Your task to perform on an android device: open app "eBay: The shopping marketplace" (install if not already installed) Image 0: 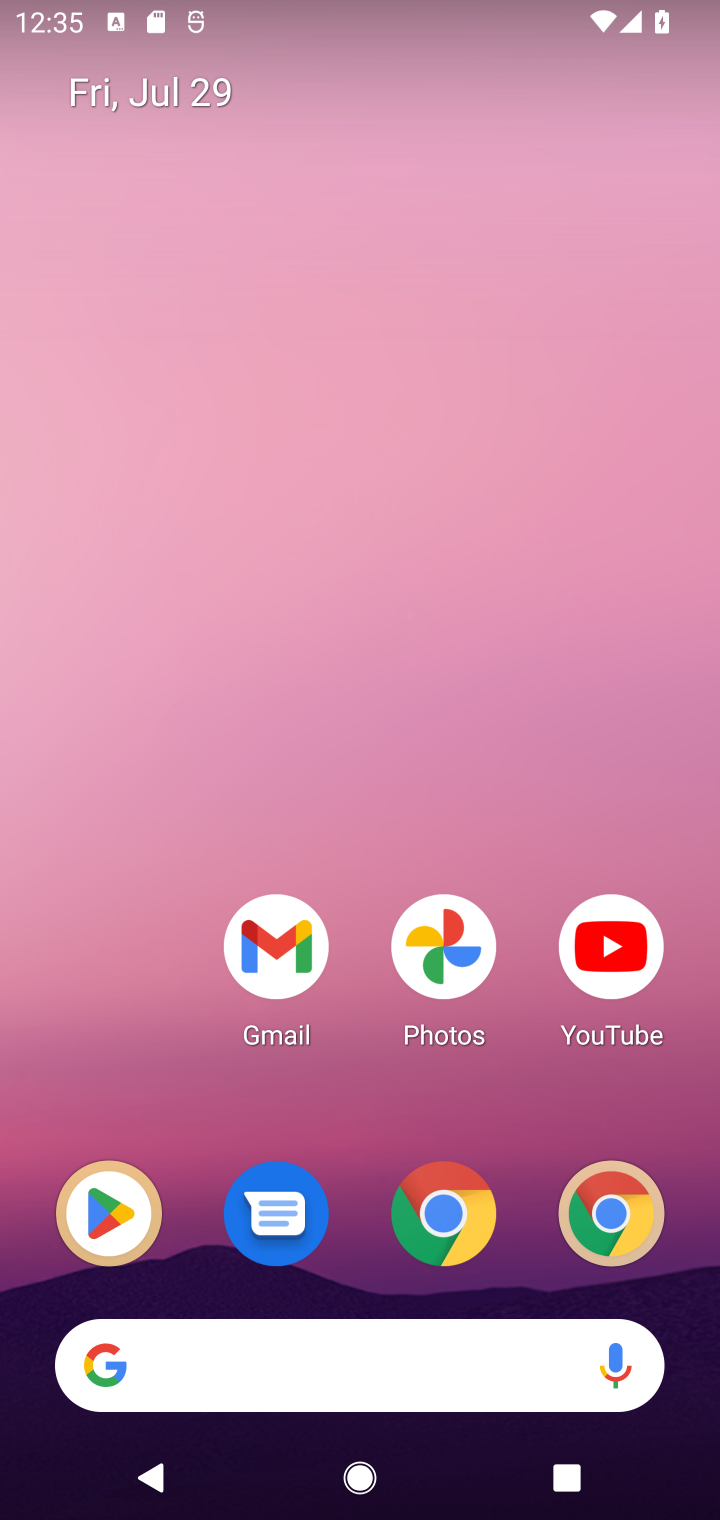
Step 0: drag from (397, 1227) to (372, 281)
Your task to perform on an android device: open app "eBay: The shopping marketplace" (install if not already installed) Image 1: 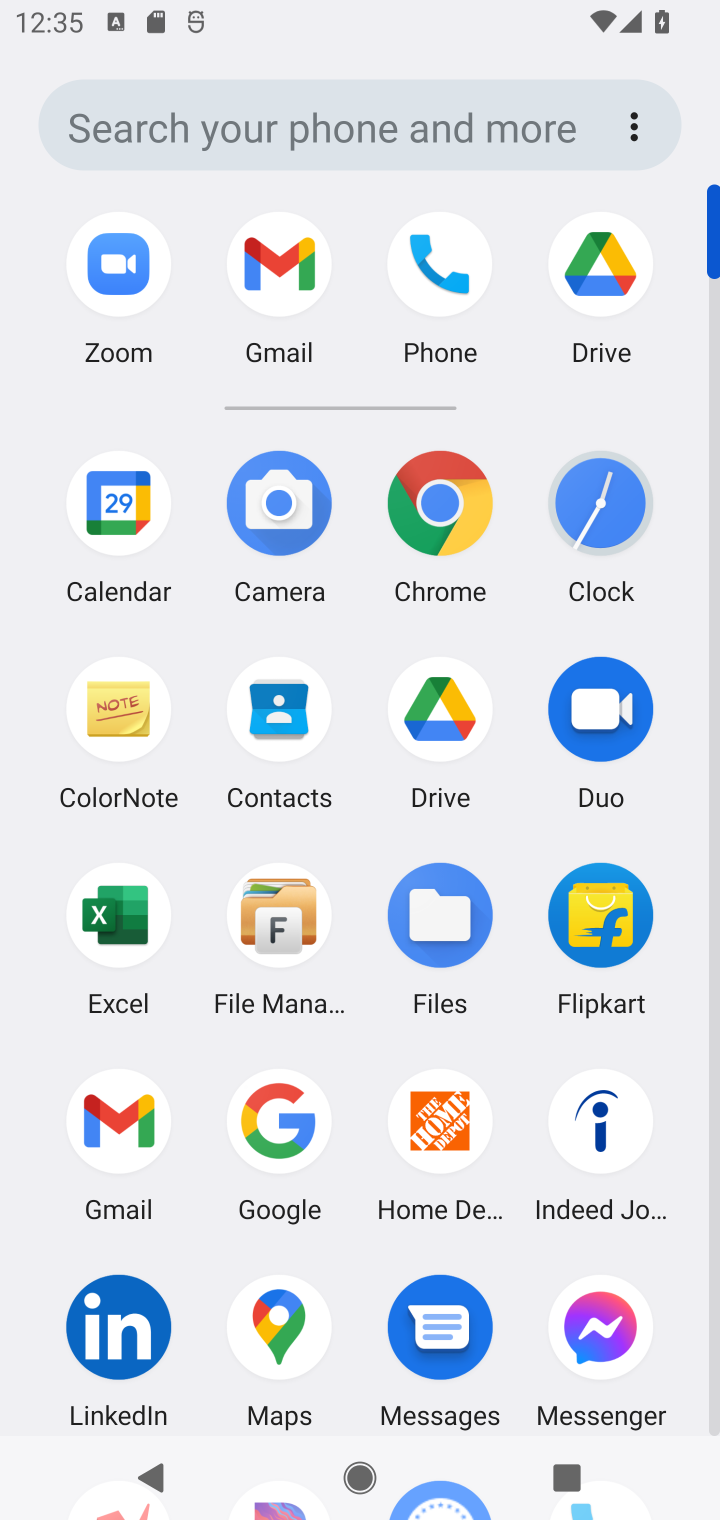
Step 1: drag from (181, 1299) to (168, 505)
Your task to perform on an android device: open app "eBay: The shopping marketplace" (install if not already installed) Image 2: 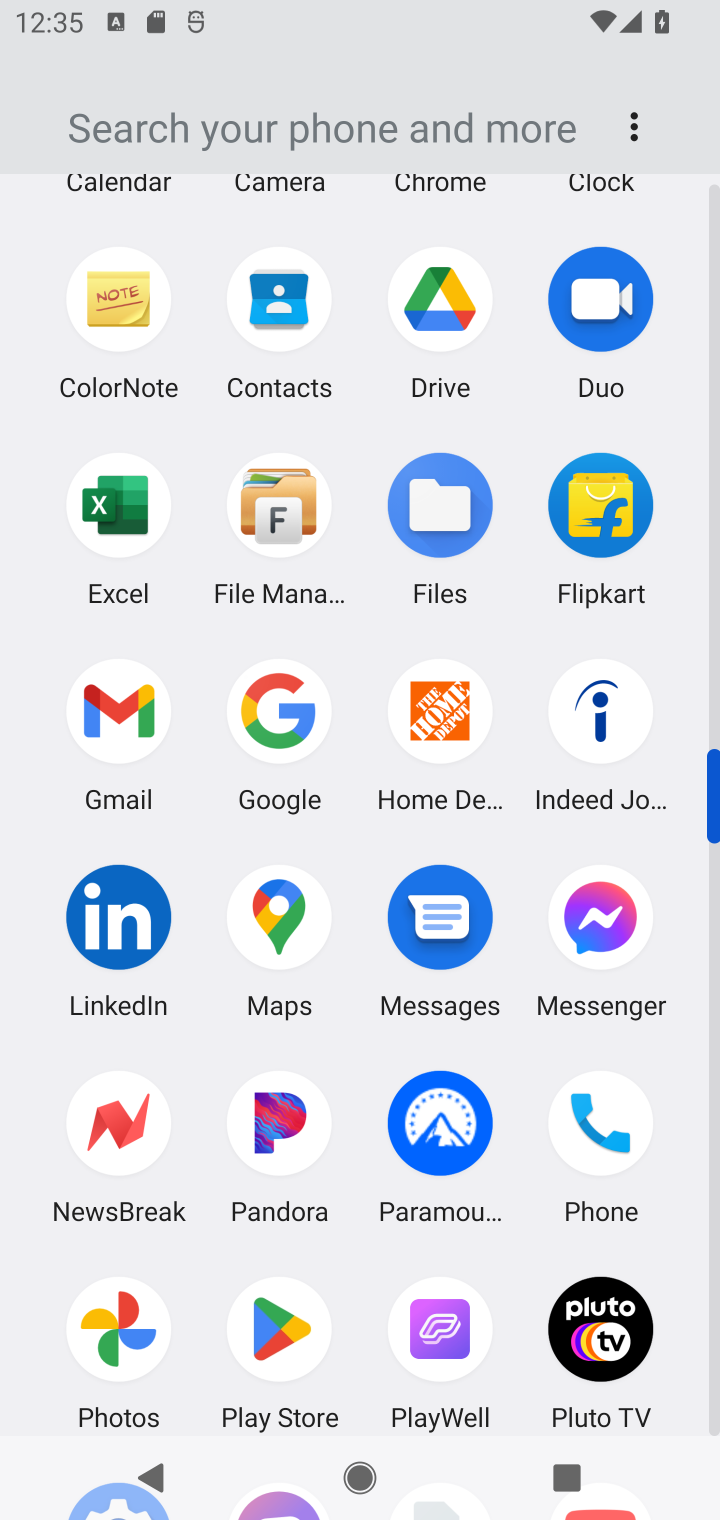
Step 2: click (296, 1336)
Your task to perform on an android device: open app "eBay: The shopping marketplace" (install if not already installed) Image 3: 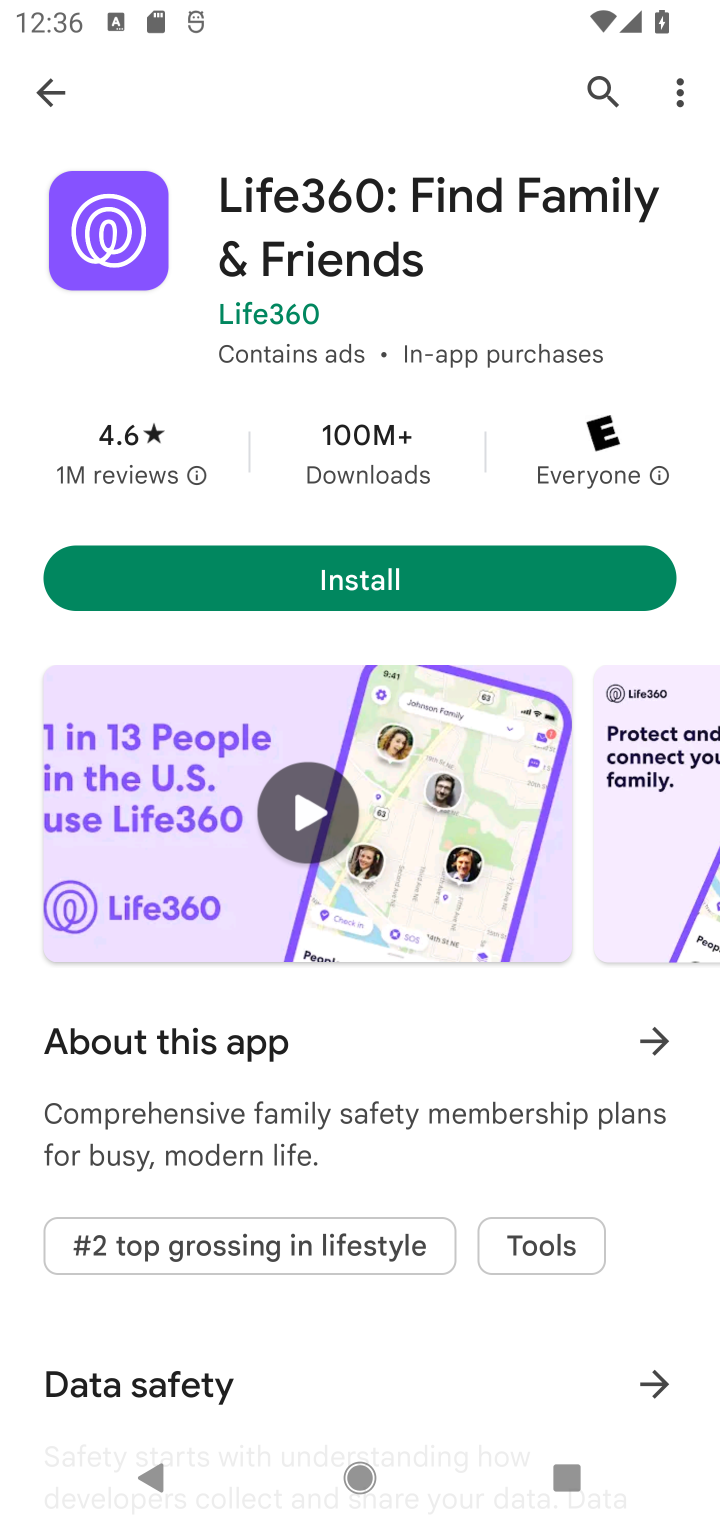
Step 3: click (598, 83)
Your task to perform on an android device: open app "eBay: The shopping marketplace" (install if not already installed) Image 4: 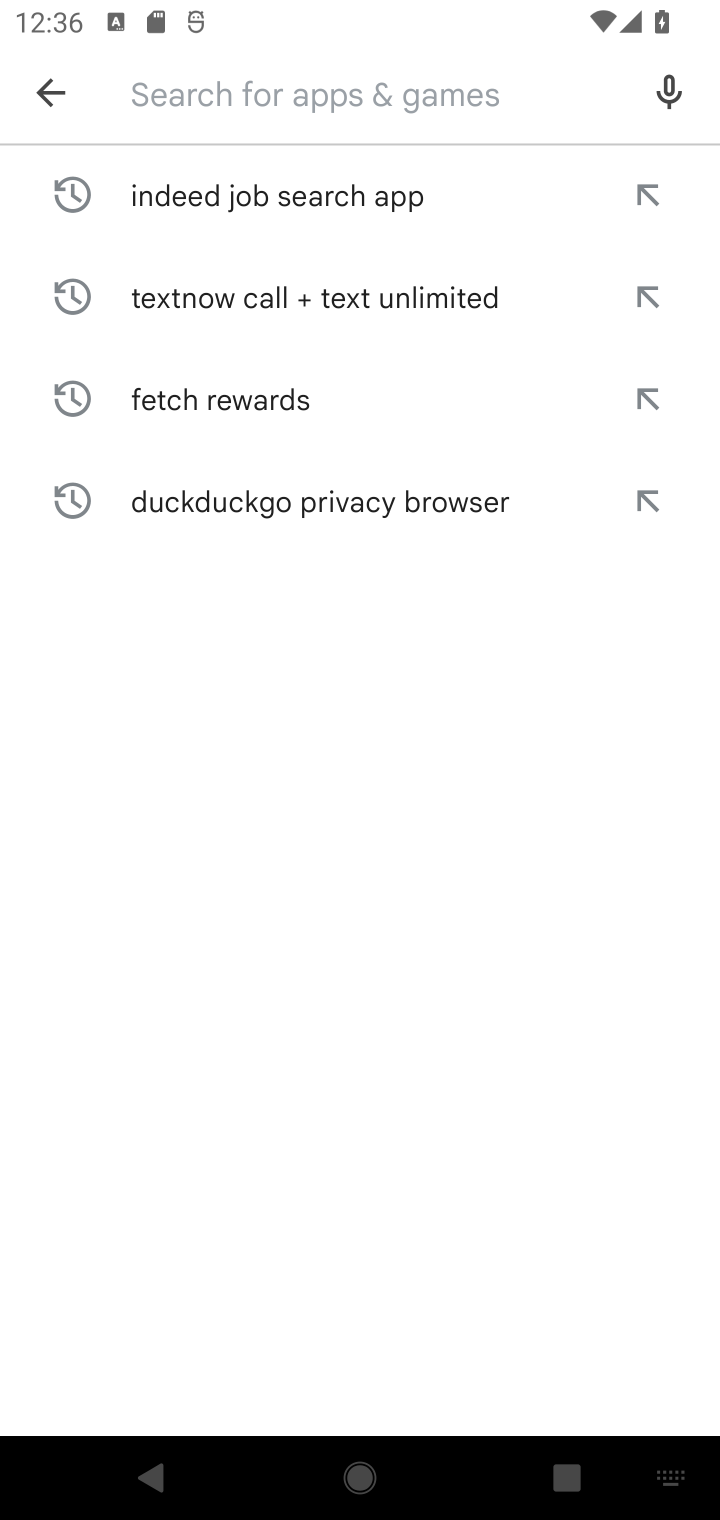
Step 4: type "eBay: The shopping marketplace"
Your task to perform on an android device: open app "eBay: The shopping marketplace" (install if not already installed) Image 5: 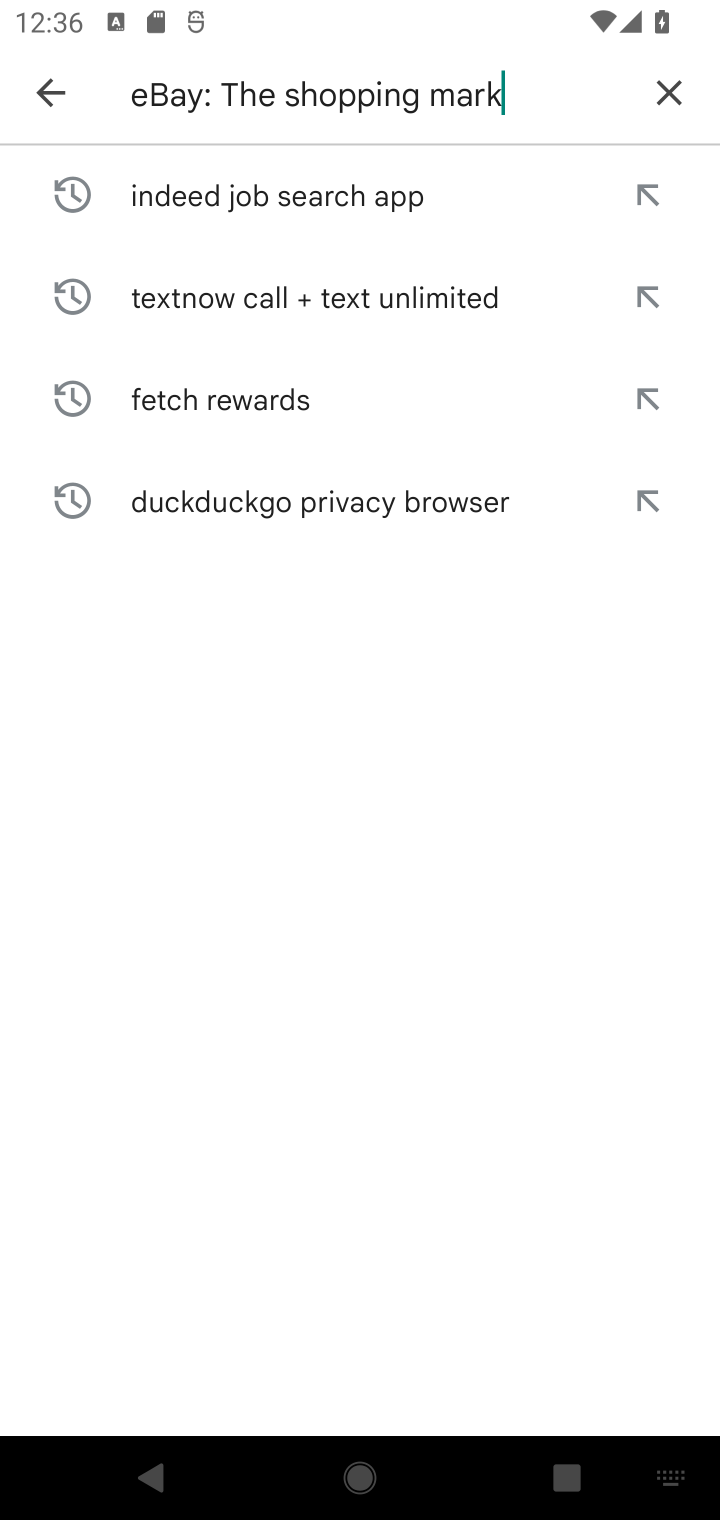
Step 5: type ""
Your task to perform on an android device: open app "eBay: The shopping marketplace" (install if not already installed) Image 6: 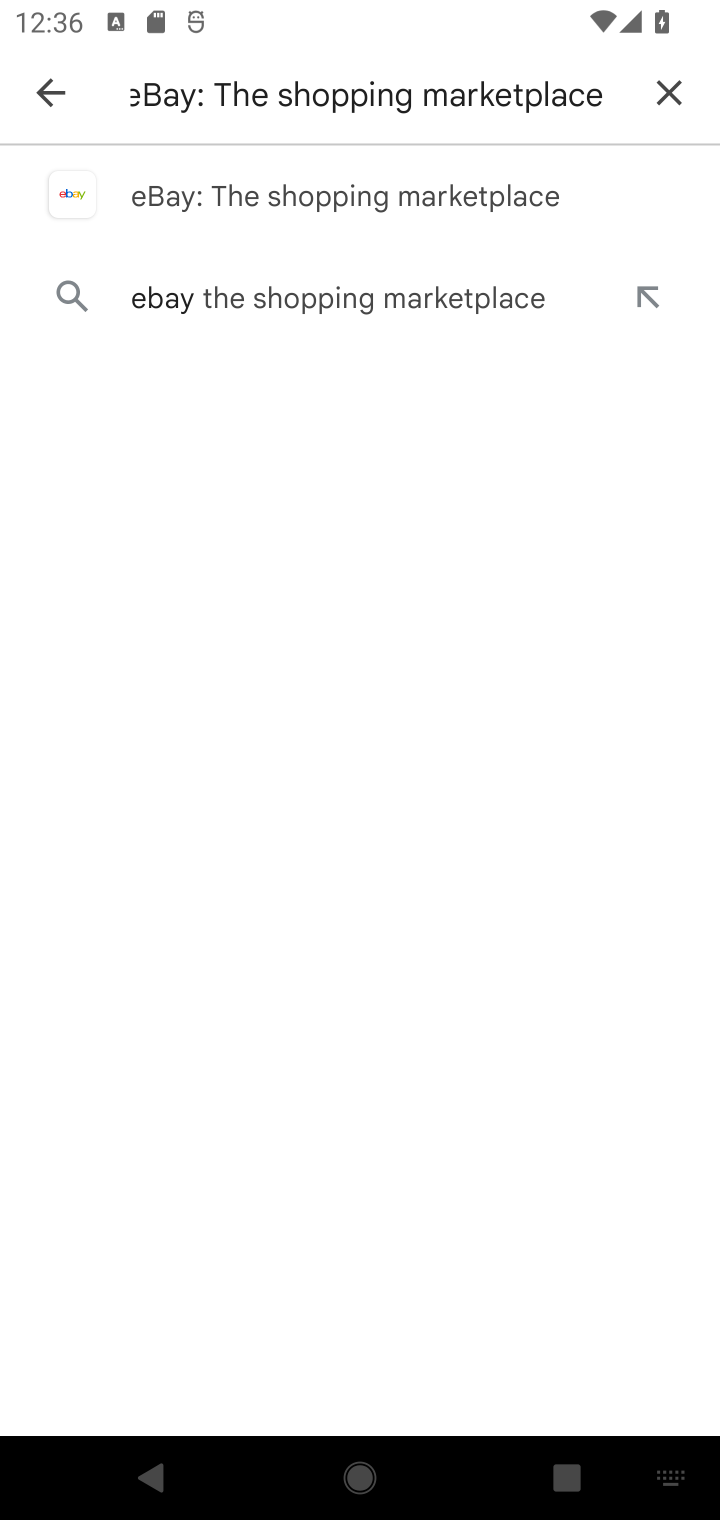
Step 6: click (354, 192)
Your task to perform on an android device: open app "eBay: The shopping marketplace" (install if not already installed) Image 7: 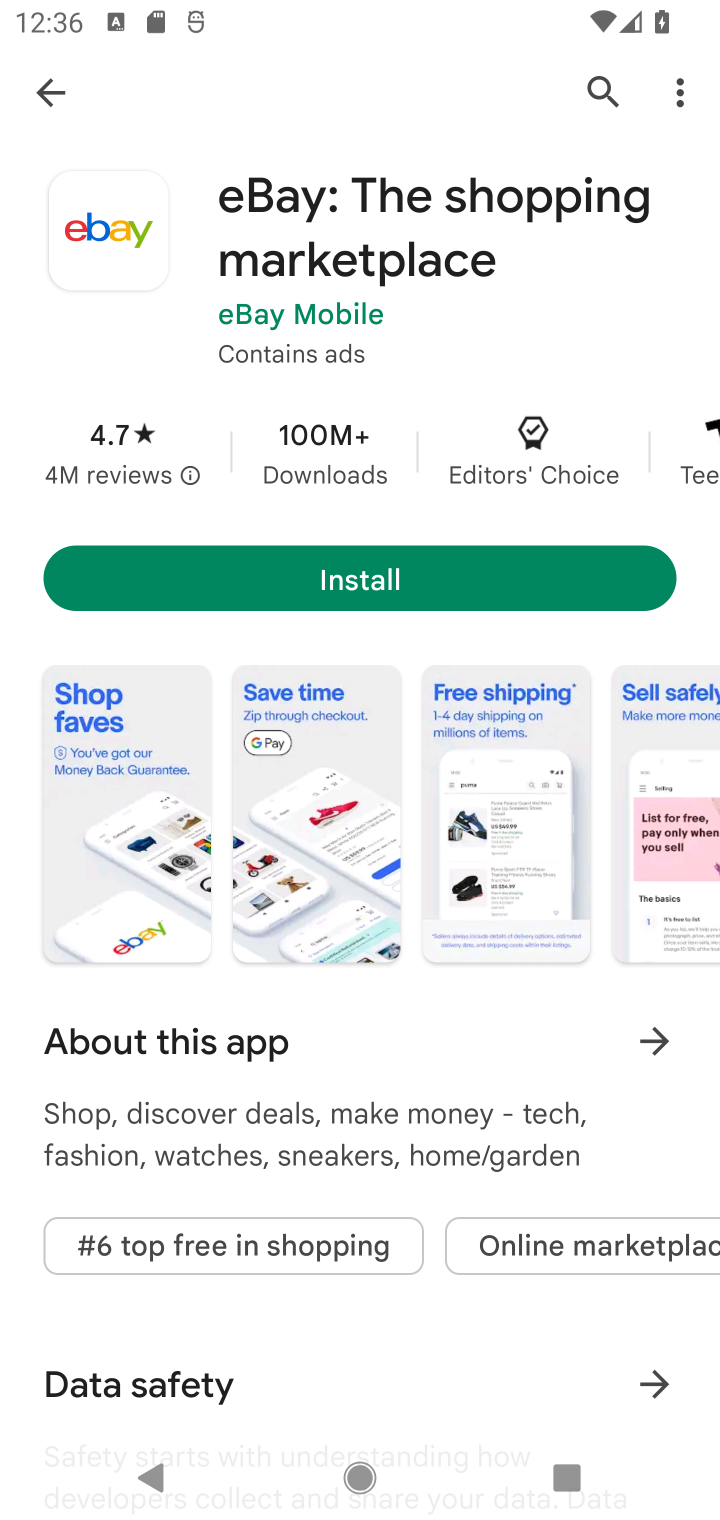
Step 7: click (421, 574)
Your task to perform on an android device: open app "eBay: The shopping marketplace" (install if not already installed) Image 8: 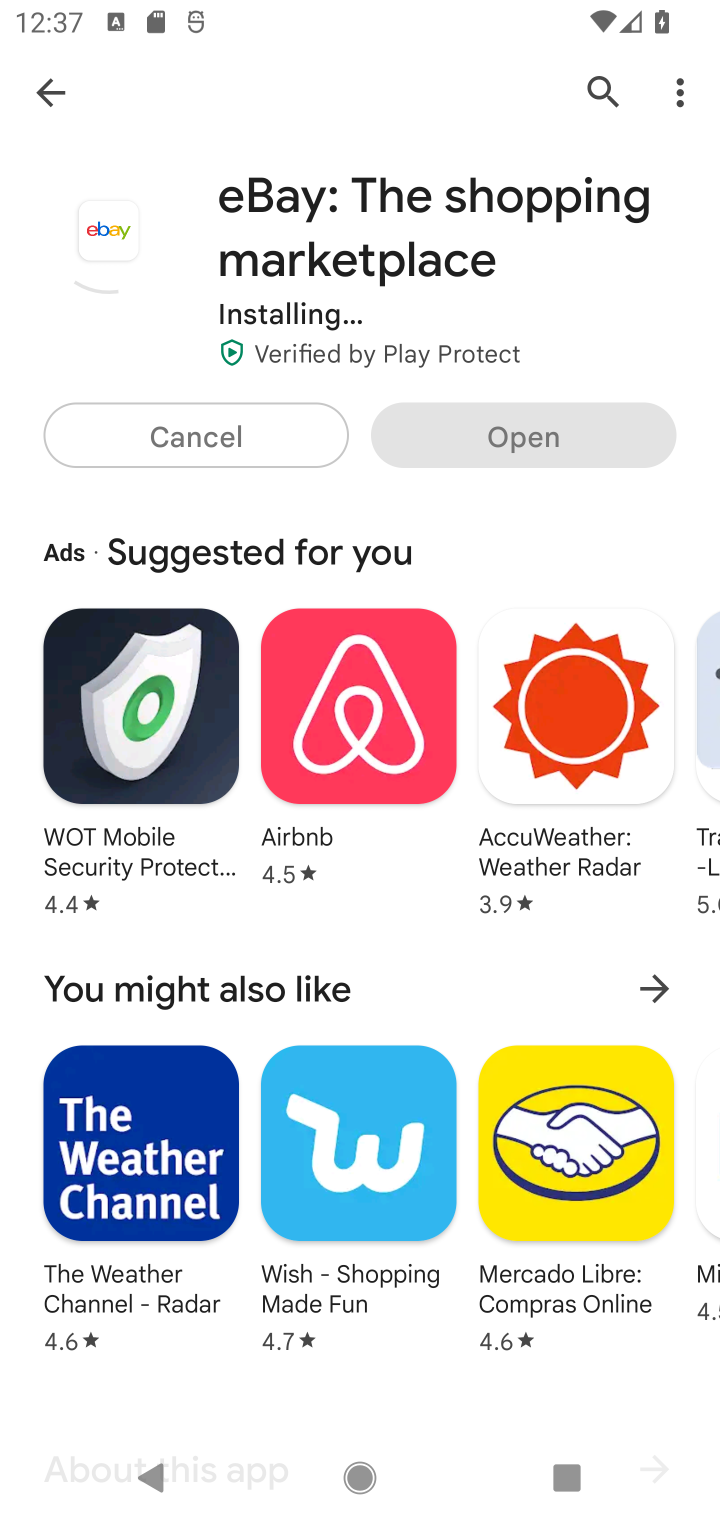
Step 8: task complete